Your task to perform on an android device: Check the news Image 0: 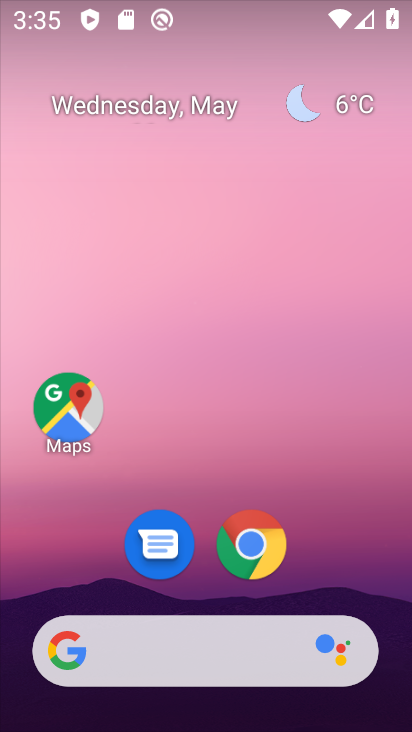
Step 0: click (236, 637)
Your task to perform on an android device: Check the news Image 1: 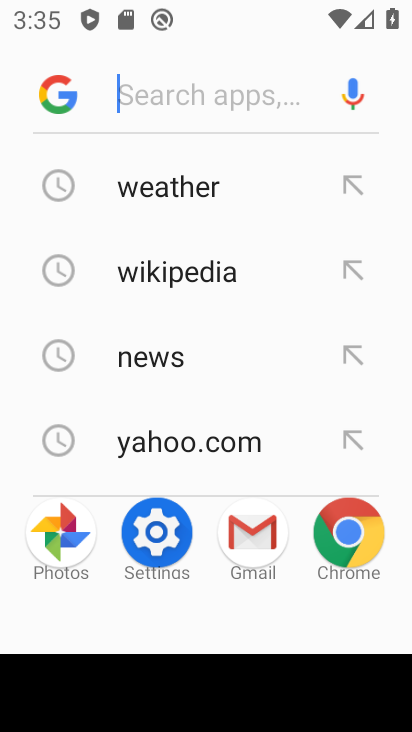
Step 1: click (140, 348)
Your task to perform on an android device: Check the news Image 2: 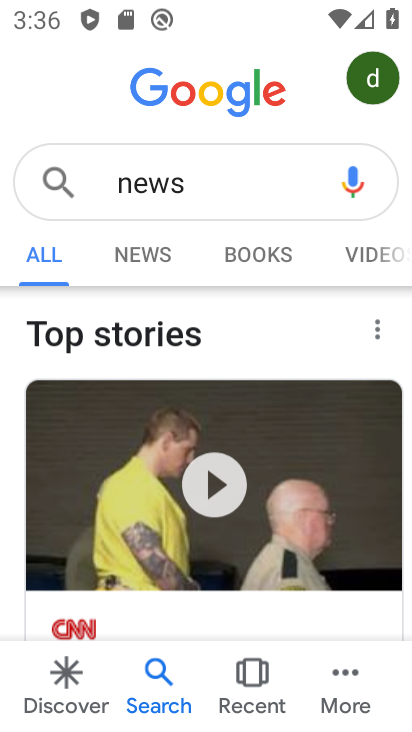
Step 2: task complete